Your task to perform on an android device: change the clock display to show seconds Image 0: 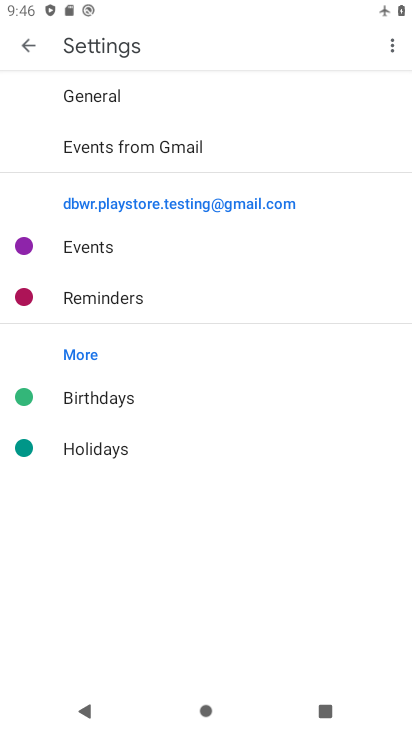
Step 0: press home button
Your task to perform on an android device: change the clock display to show seconds Image 1: 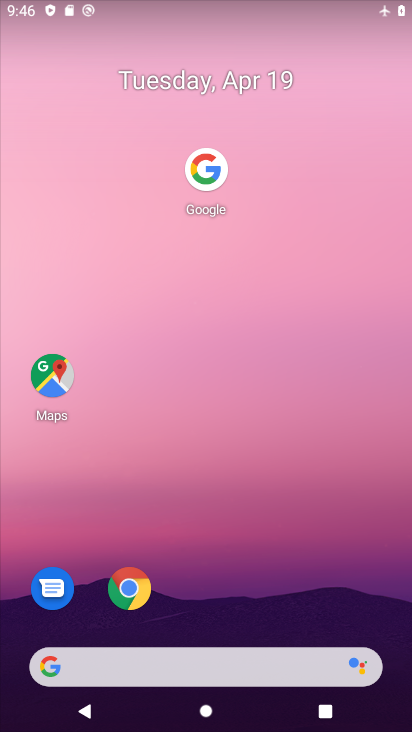
Step 1: drag from (240, 572) to (239, 12)
Your task to perform on an android device: change the clock display to show seconds Image 2: 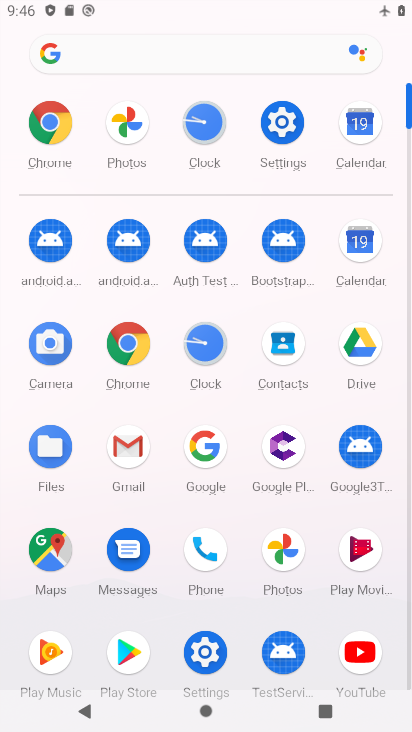
Step 2: click (206, 340)
Your task to perform on an android device: change the clock display to show seconds Image 3: 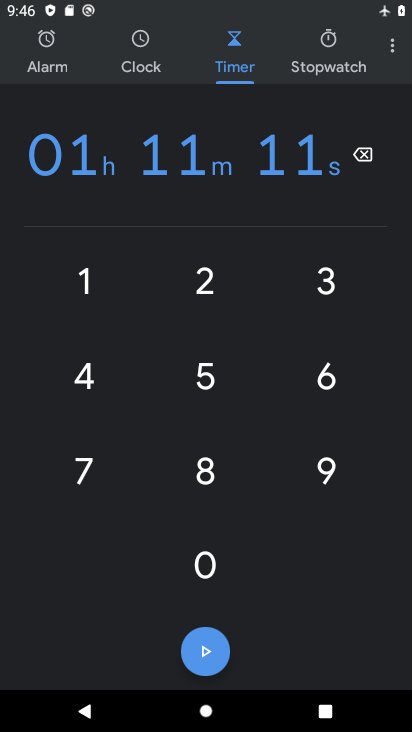
Step 3: click (388, 50)
Your task to perform on an android device: change the clock display to show seconds Image 4: 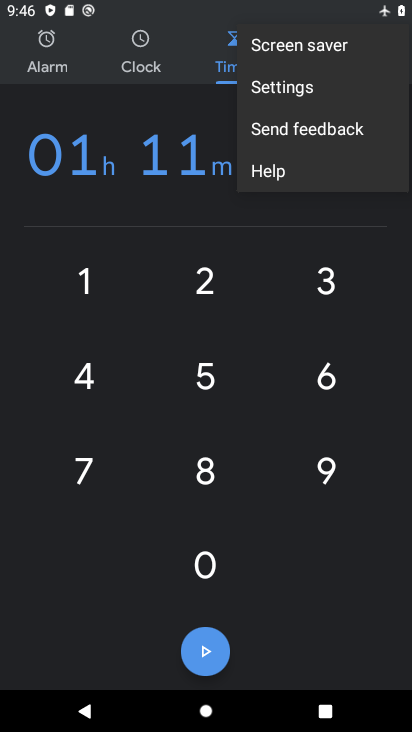
Step 4: click (300, 88)
Your task to perform on an android device: change the clock display to show seconds Image 5: 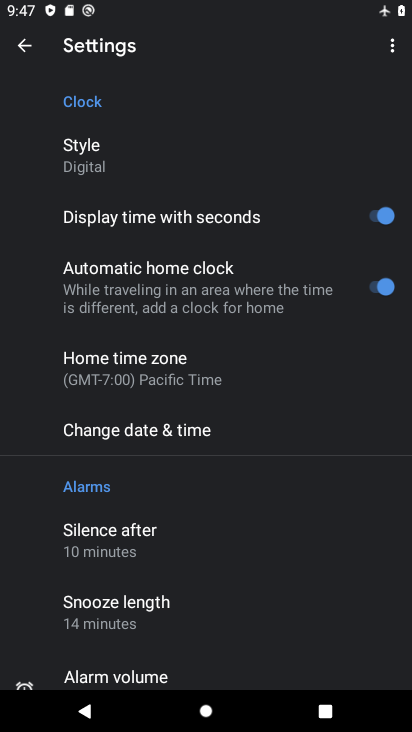
Step 5: task complete